Your task to perform on an android device: What's the news in Venezuela? Image 0: 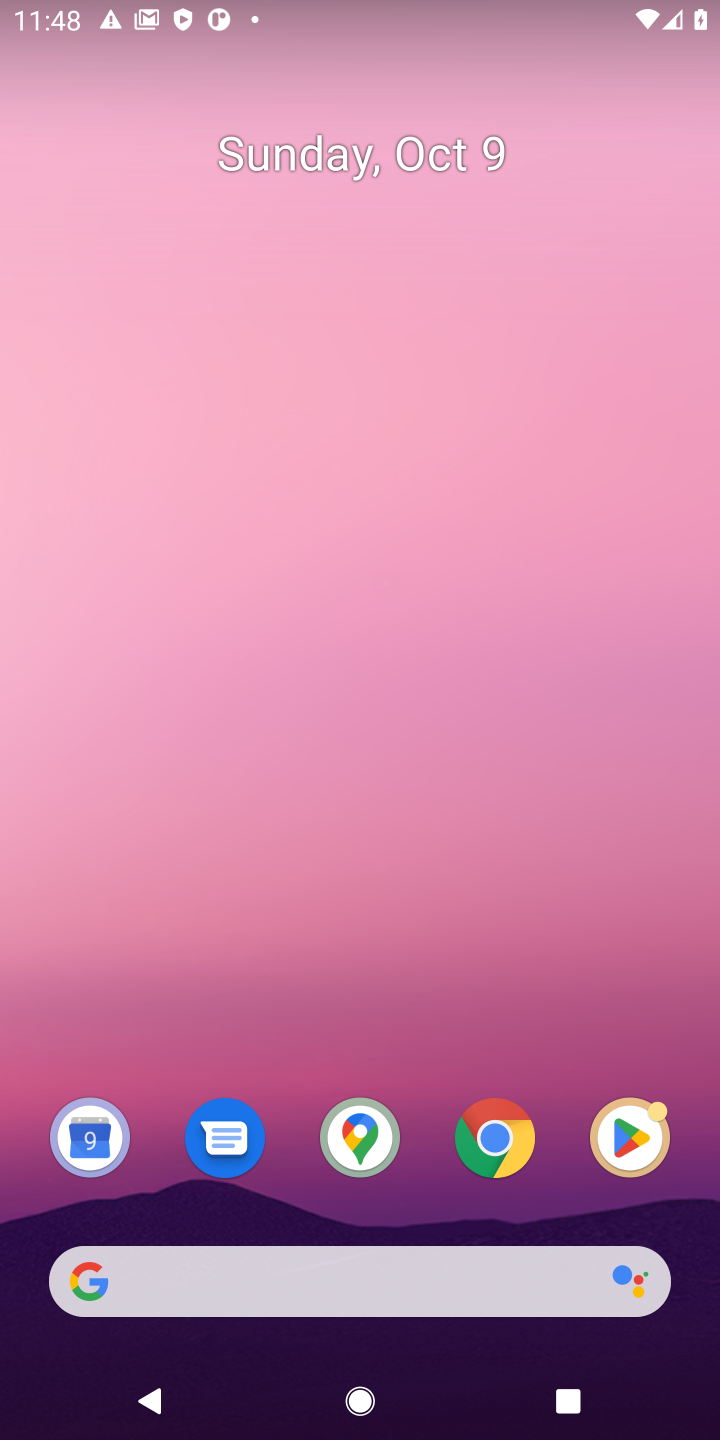
Step 0: click (488, 1150)
Your task to perform on an android device: What's the news in Venezuela? Image 1: 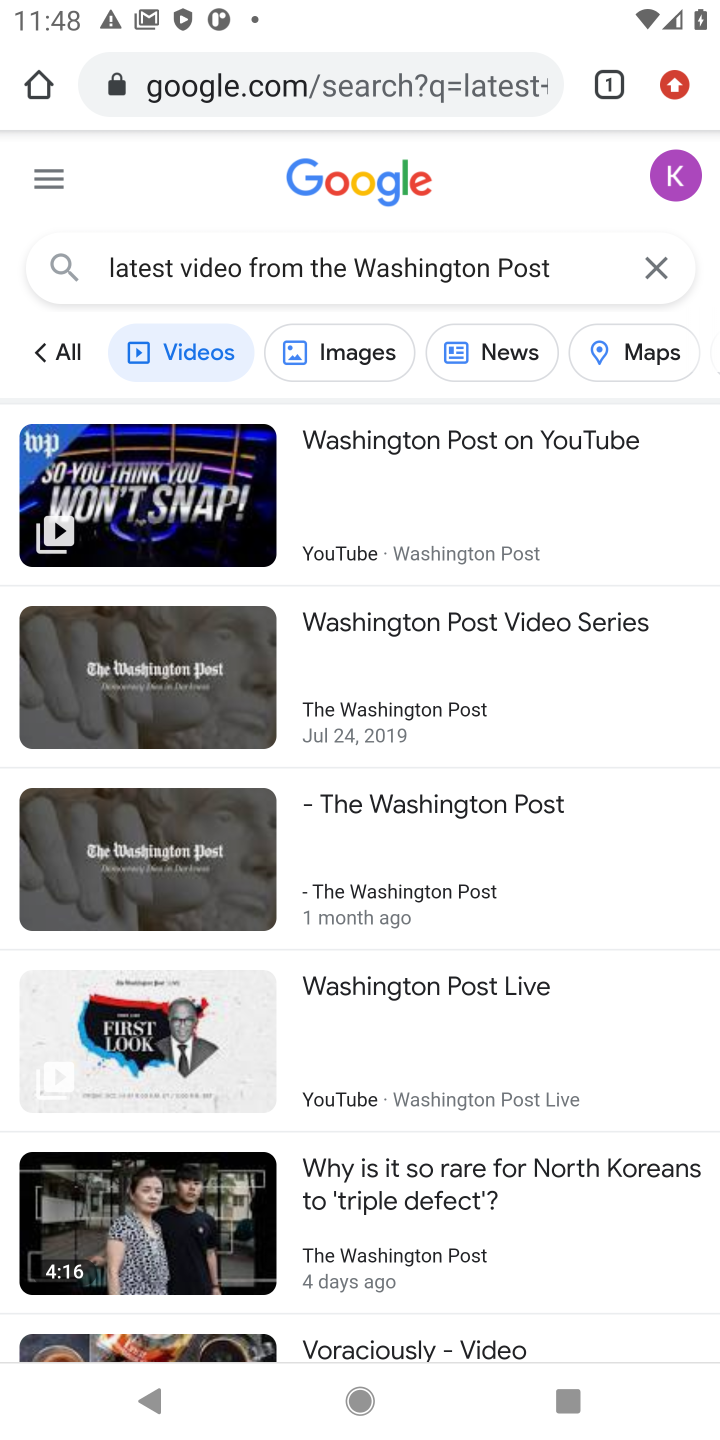
Step 1: click (659, 260)
Your task to perform on an android device: What's the news in Venezuela? Image 2: 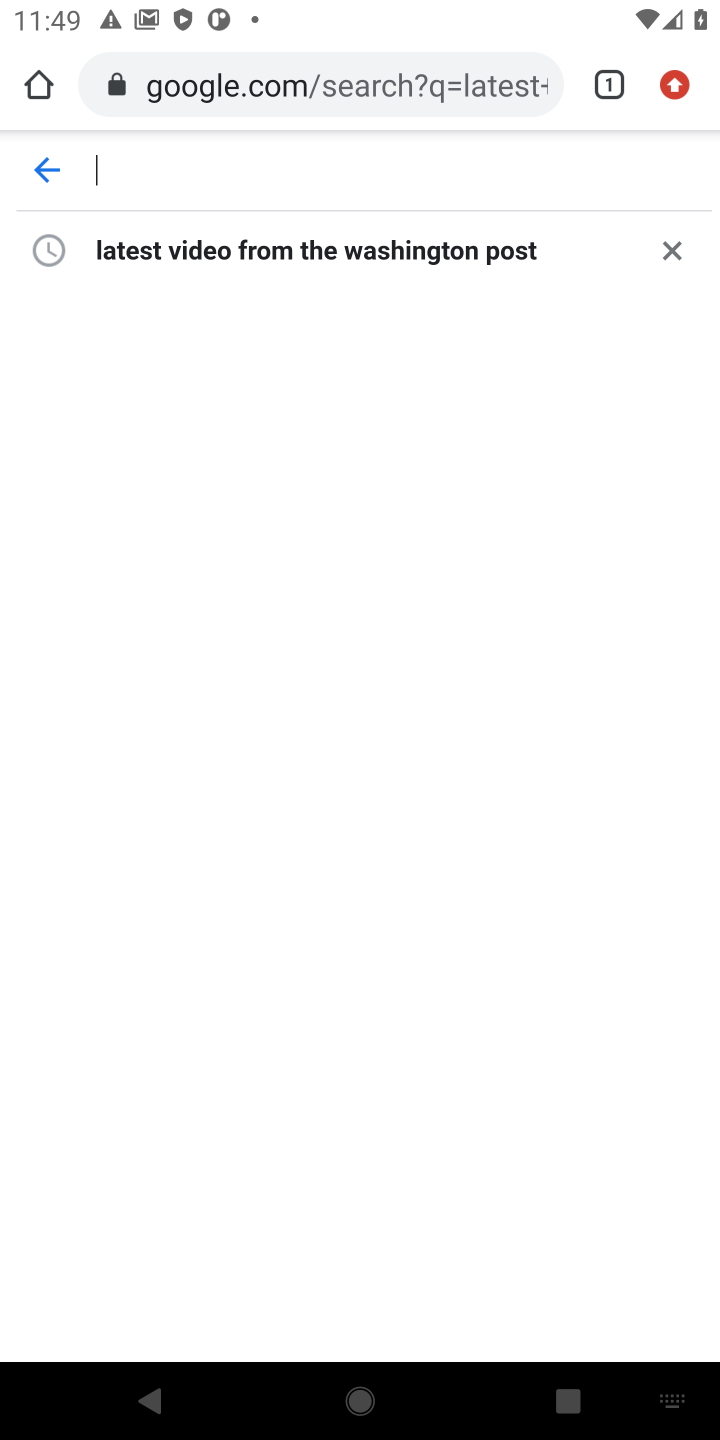
Step 2: type "news in venezuela"
Your task to perform on an android device: What's the news in Venezuela? Image 3: 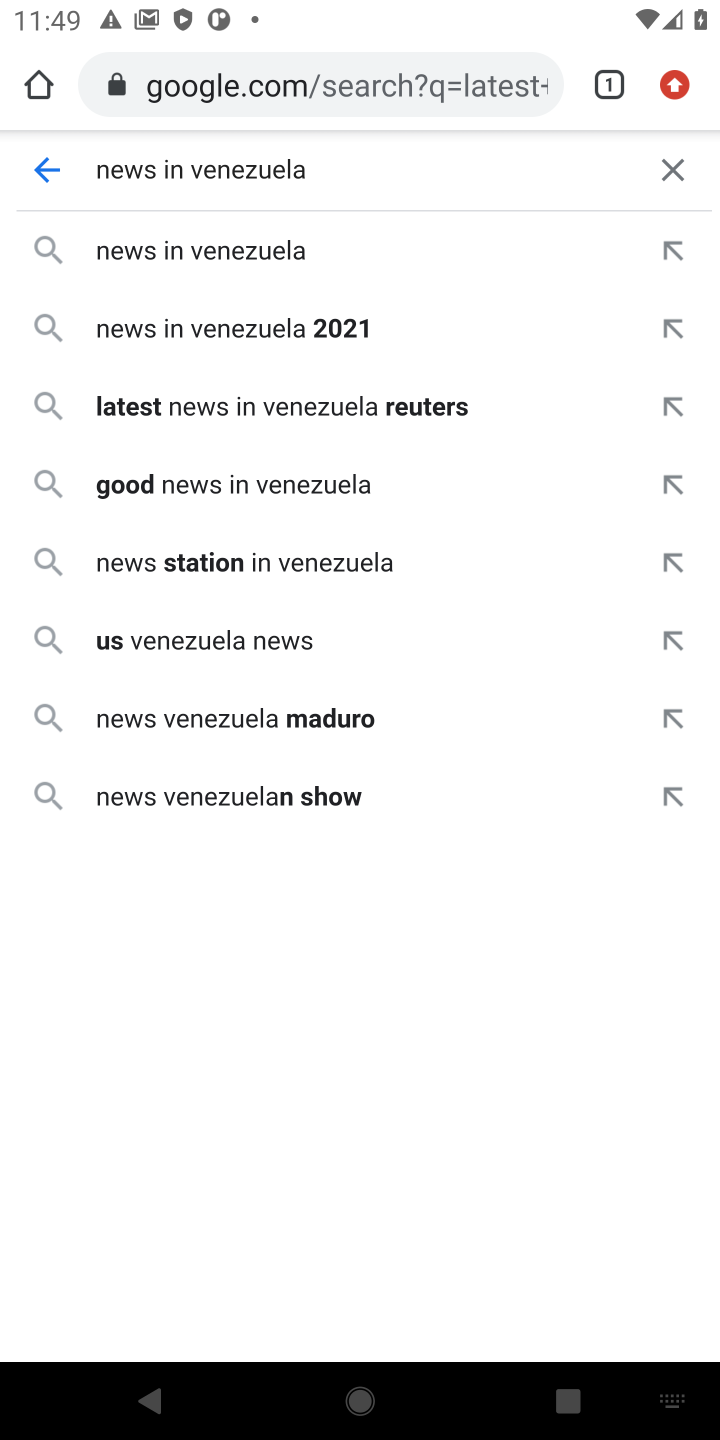
Step 3: press enter
Your task to perform on an android device: What's the news in Venezuela? Image 4: 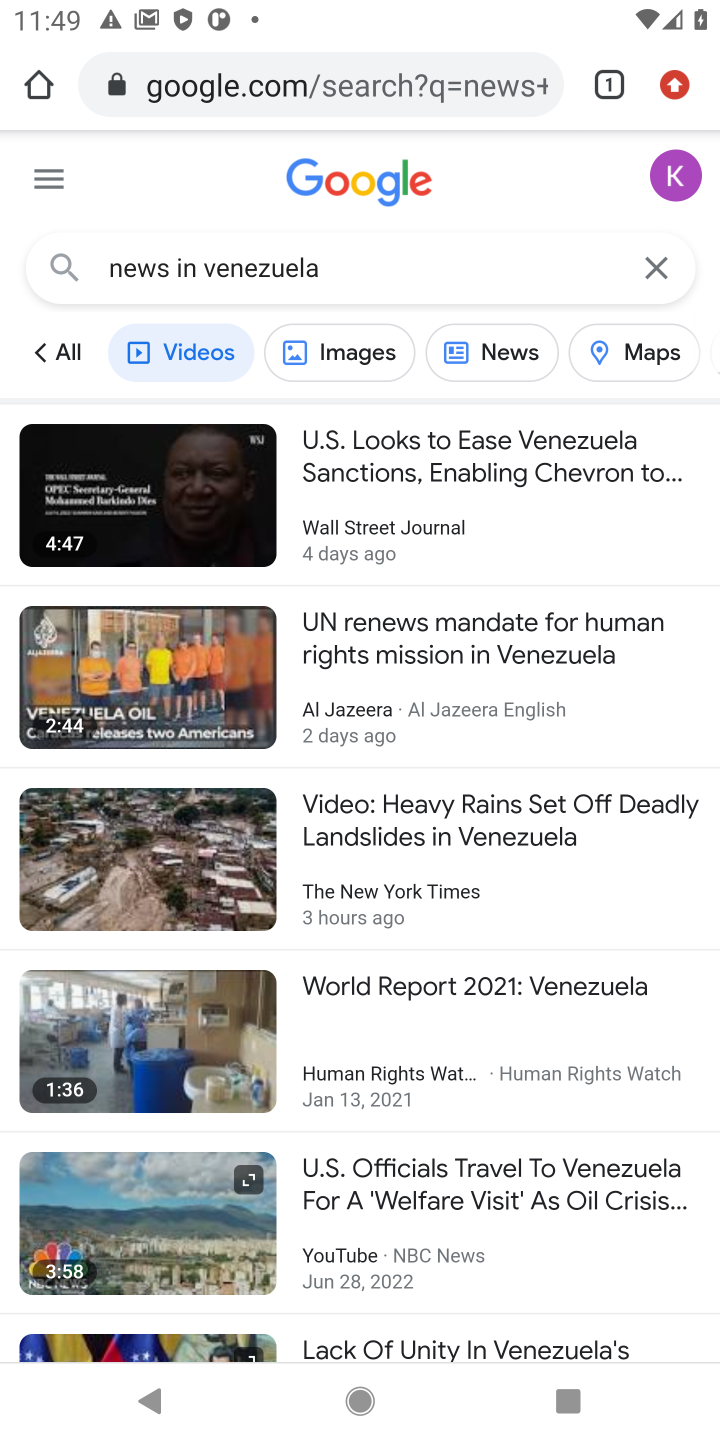
Step 4: click (514, 346)
Your task to perform on an android device: What's the news in Venezuela? Image 5: 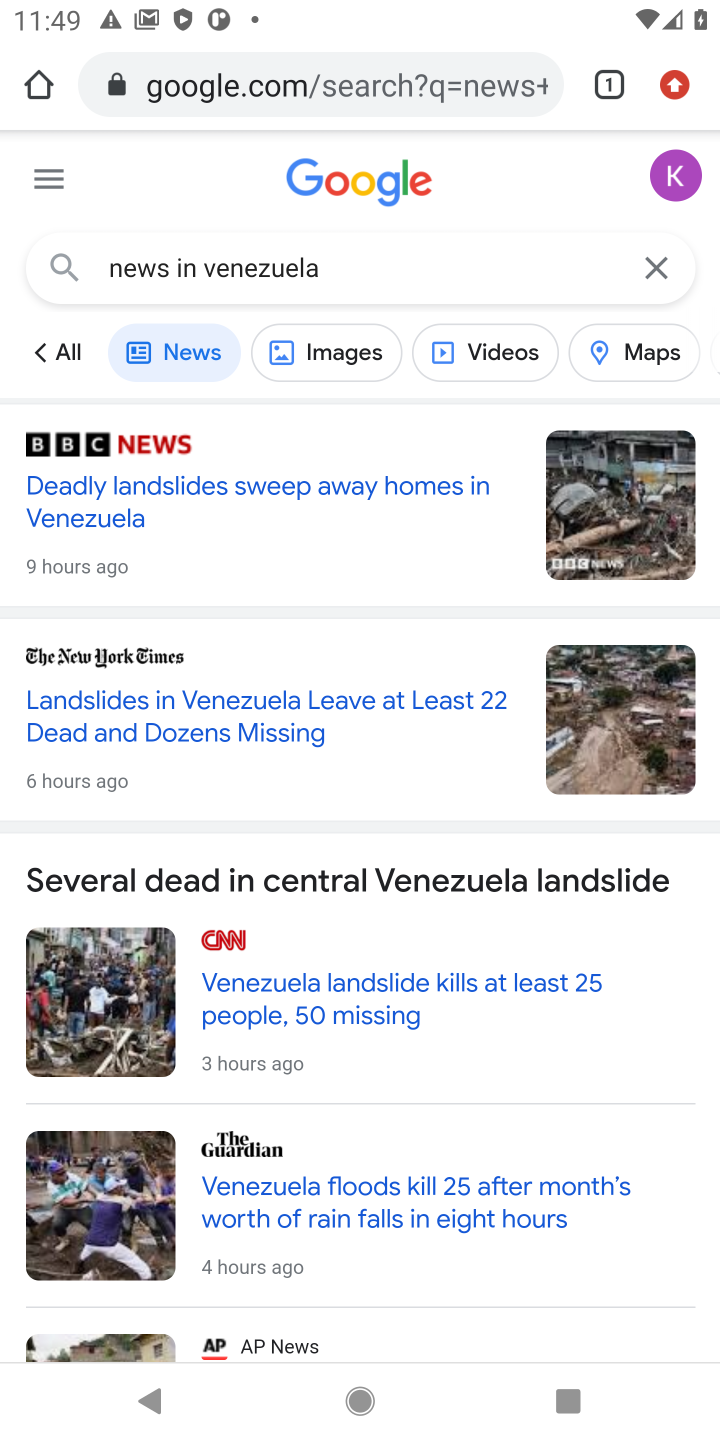
Step 5: task complete